Your task to perform on an android device: What's the weather today? Image 0: 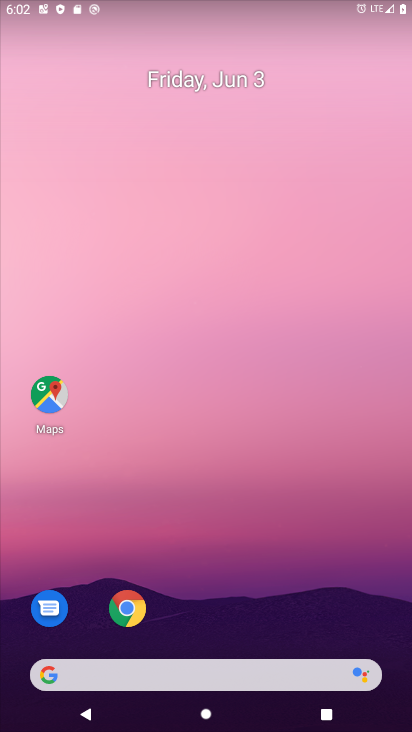
Step 0: click (169, 679)
Your task to perform on an android device: What's the weather today? Image 1: 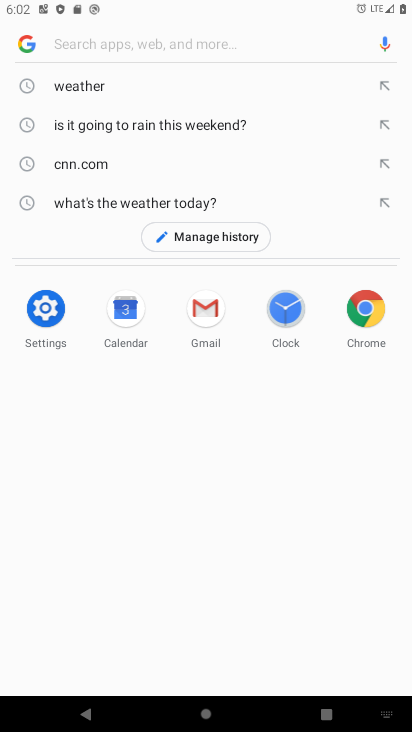
Step 1: click (83, 86)
Your task to perform on an android device: What's the weather today? Image 2: 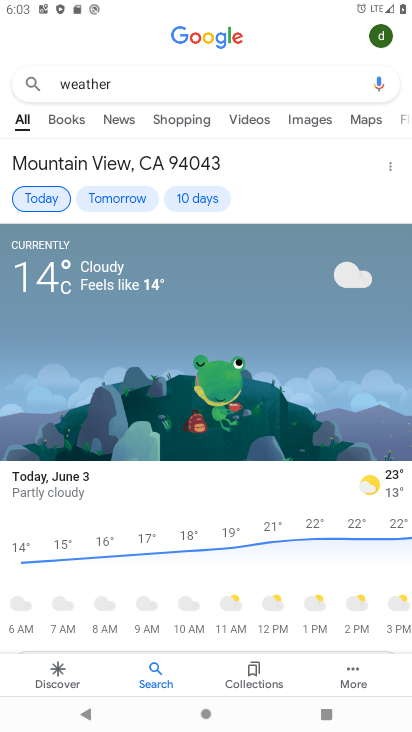
Step 2: task complete